Your task to perform on an android device: Look up the best rated headphones on Aliexpress Image 0: 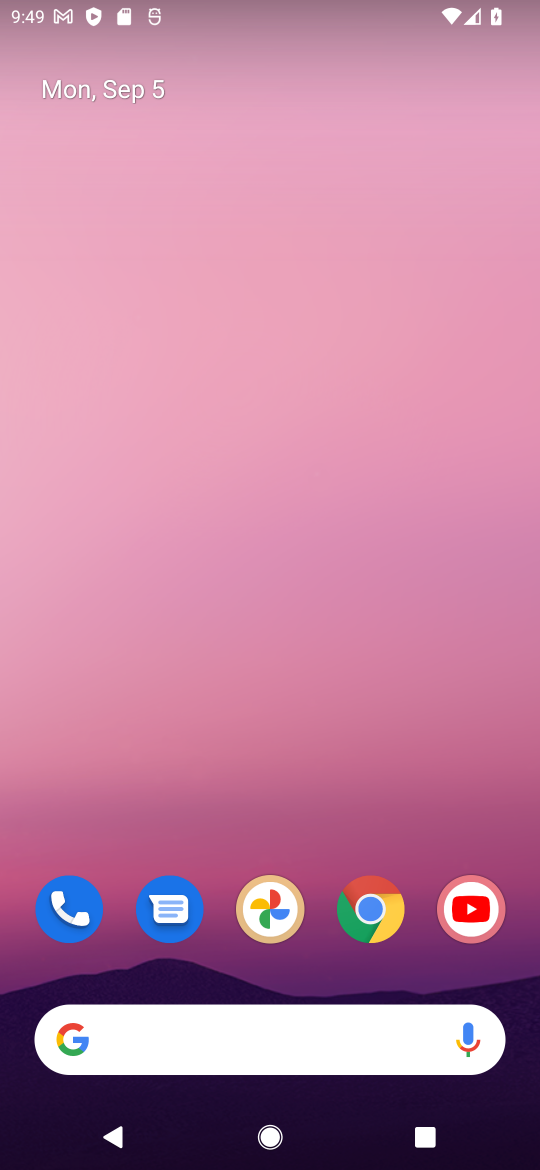
Step 0: click (364, 919)
Your task to perform on an android device: Look up the best rated headphones on Aliexpress Image 1: 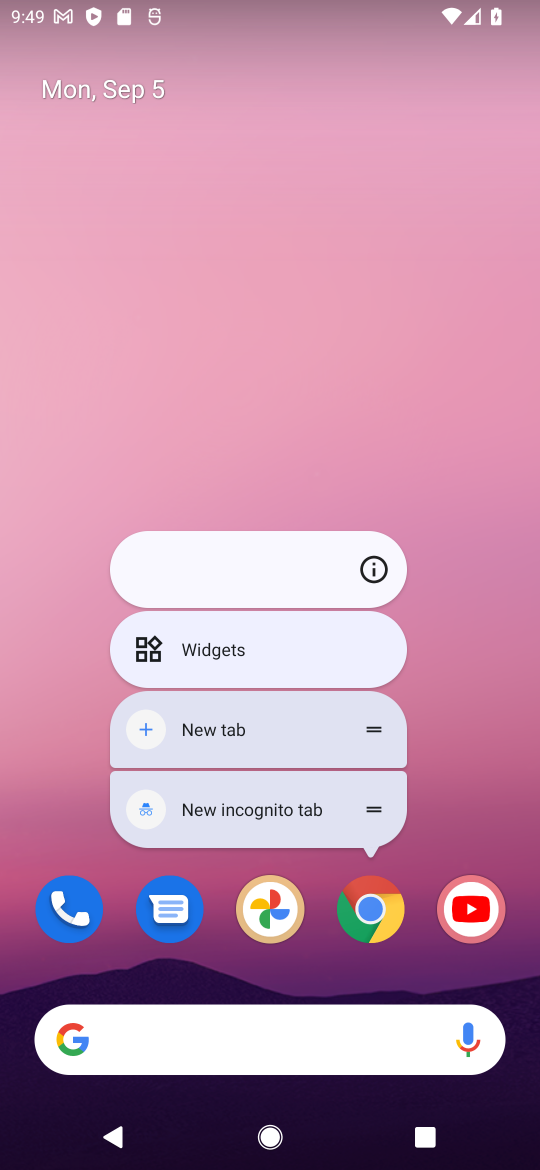
Step 1: click (363, 925)
Your task to perform on an android device: Look up the best rated headphones on Aliexpress Image 2: 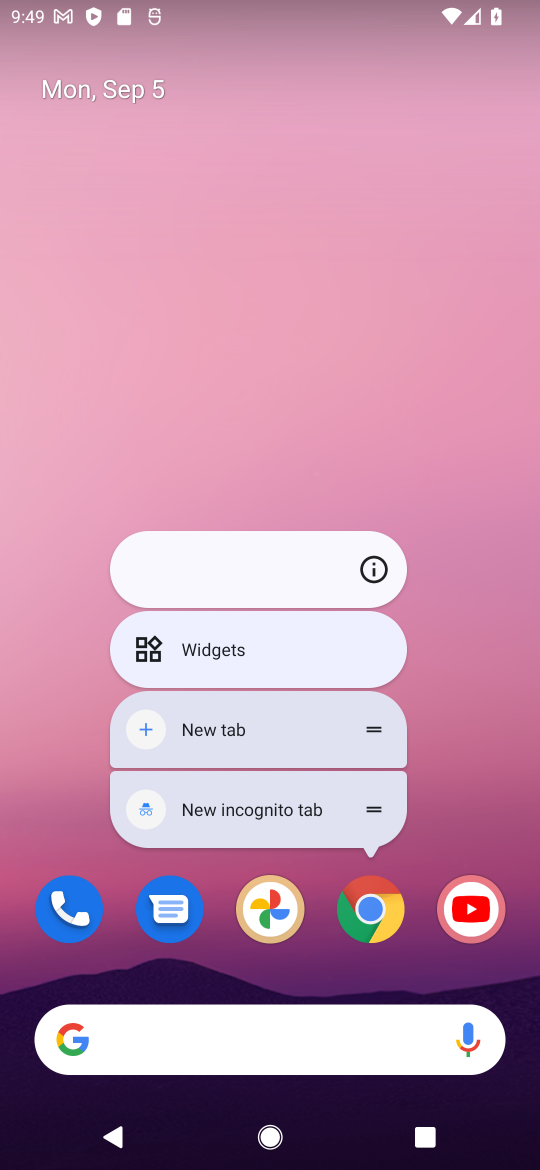
Step 2: click (363, 925)
Your task to perform on an android device: Look up the best rated headphones on Aliexpress Image 3: 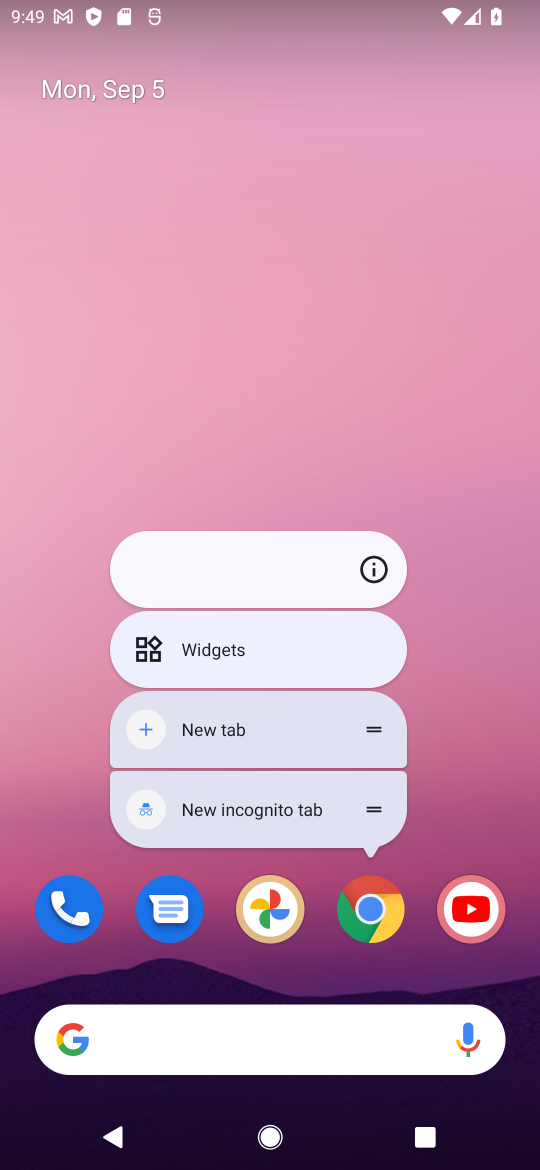
Step 3: click (426, 460)
Your task to perform on an android device: Look up the best rated headphones on Aliexpress Image 4: 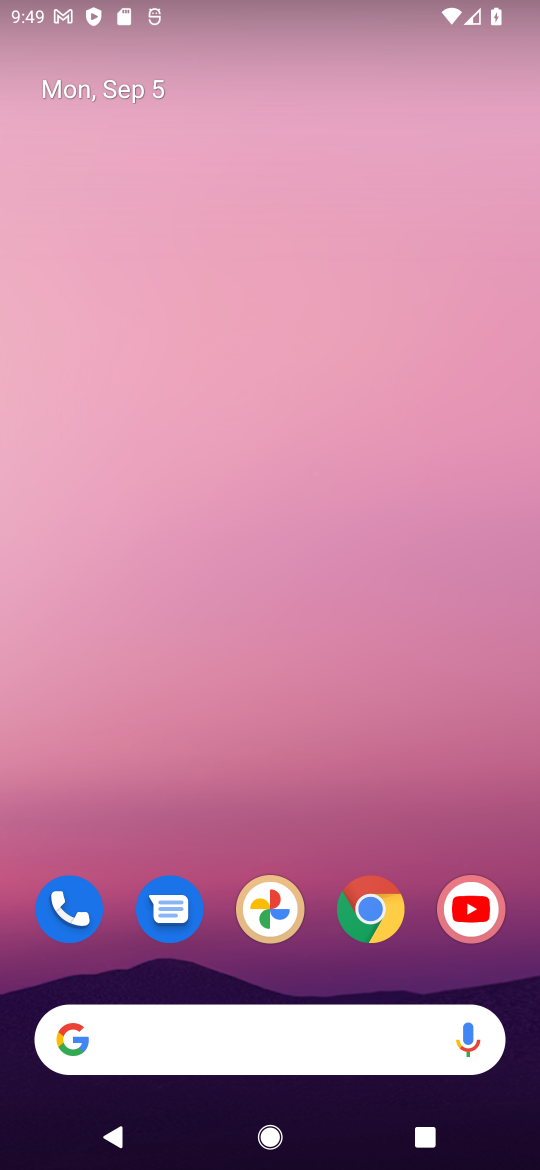
Step 4: click (369, 901)
Your task to perform on an android device: Look up the best rated headphones on Aliexpress Image 5: 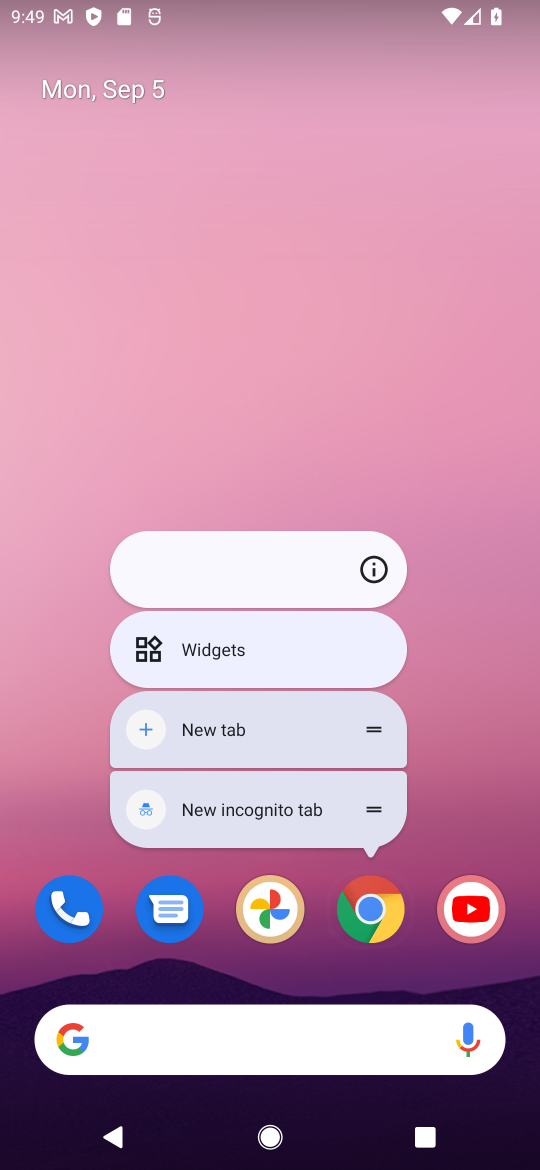
Step 5: click (369, 901)
Your task to perform on an android device: Look up the best rated headphones on Aliexpress Image 6: 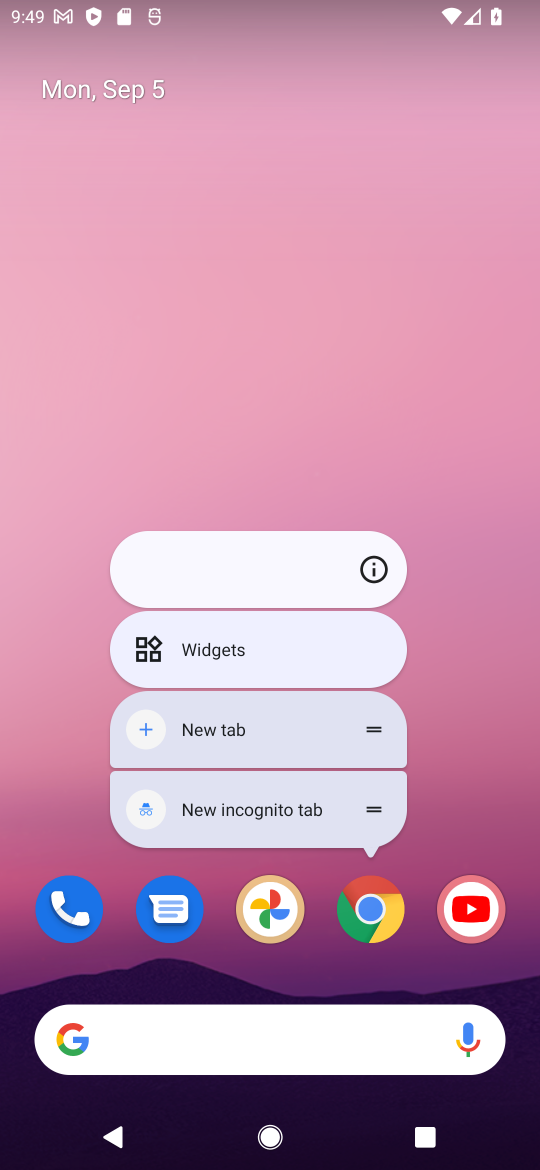
Step 6: click (369, 901)
Your task to perform on an android device: Look up the best rated headphones on Aliexpress Image 7: 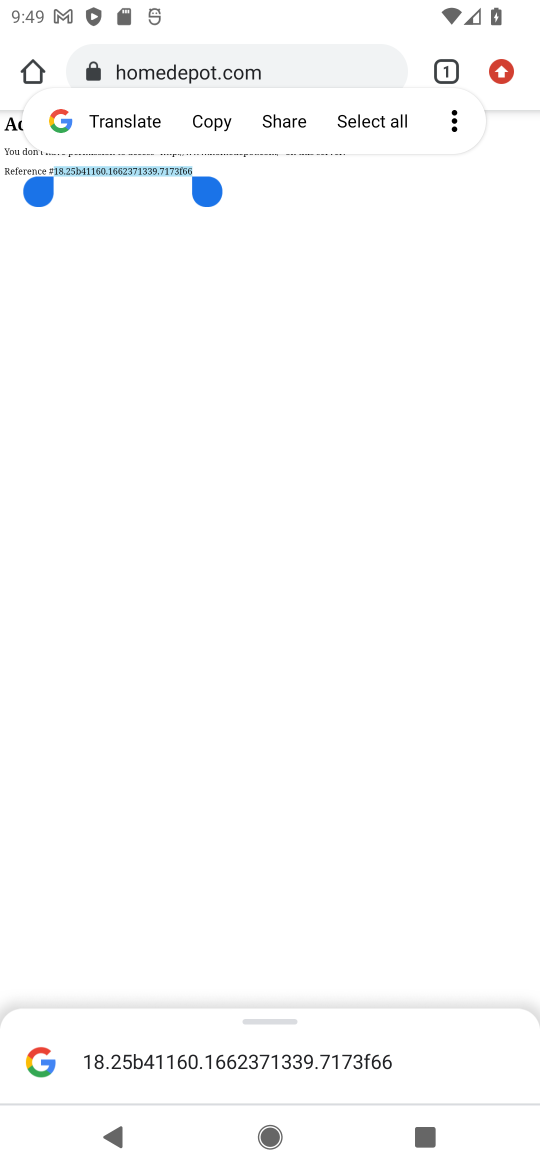
Step 7: click (341, 62)
Your task to perform on an android device: Look up the best rated headphones on Aliexpress Image 8: 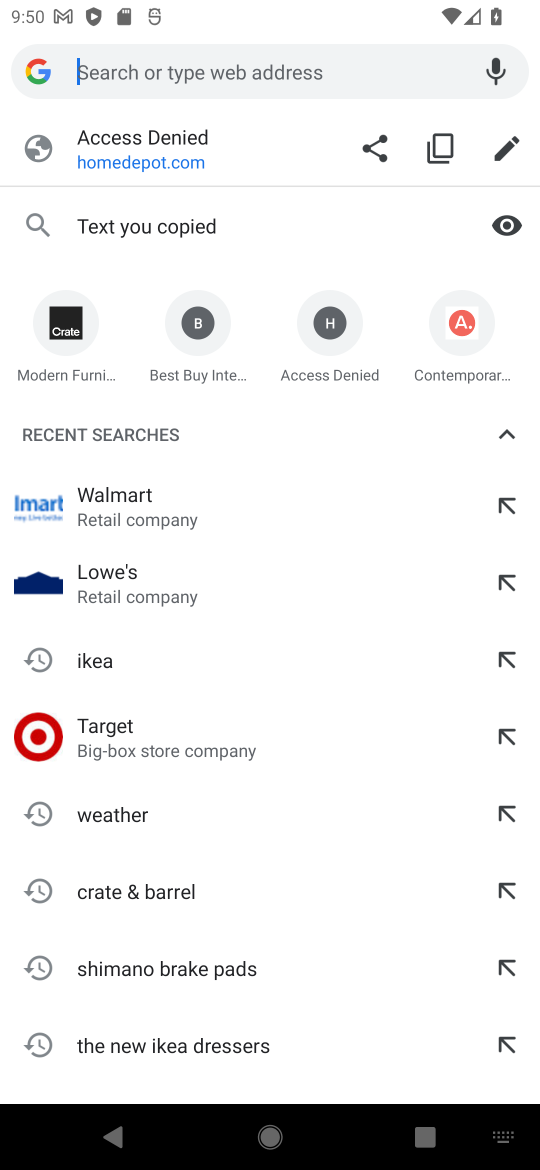
Step 8: type "aliexpress"
Your task to perform on an android device: Look up the best rated headphones on Aliexpress Image 9: 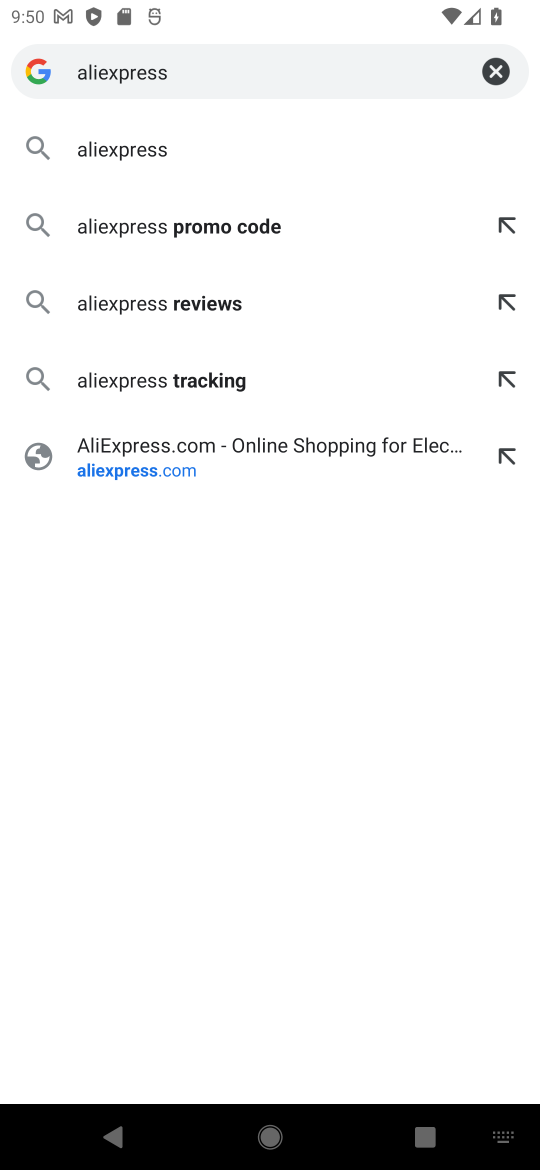
Step 9: click (222, 452)
Your task to perform on an android device: Look up the best rated headphones on Aliexpress Image 10: 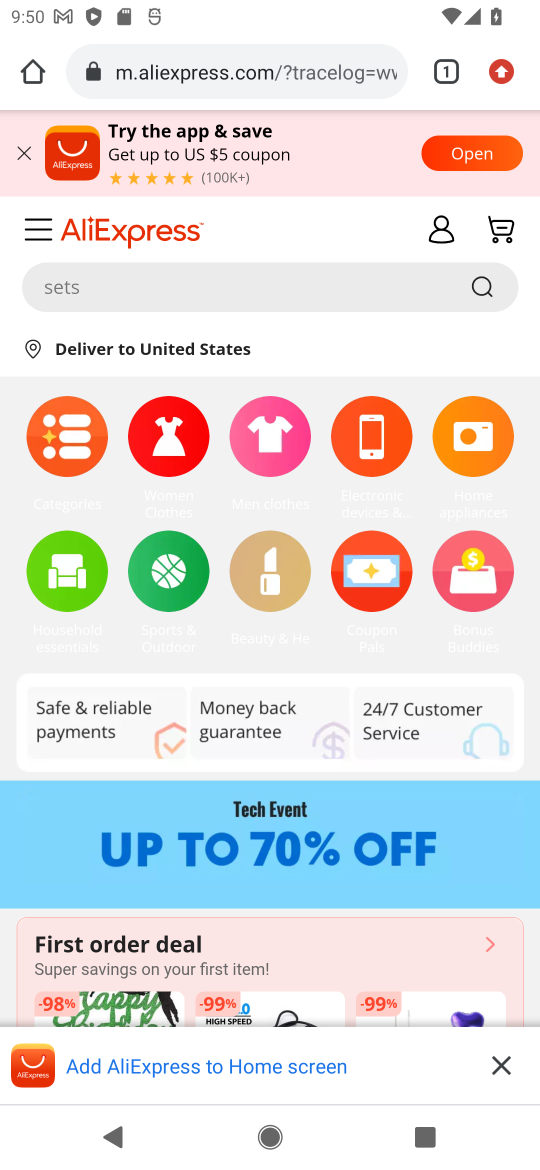
Step 10: click (311, 313)
Your task to perform on an android device: Look up the best rated headphones on Aliexpress Image 11: 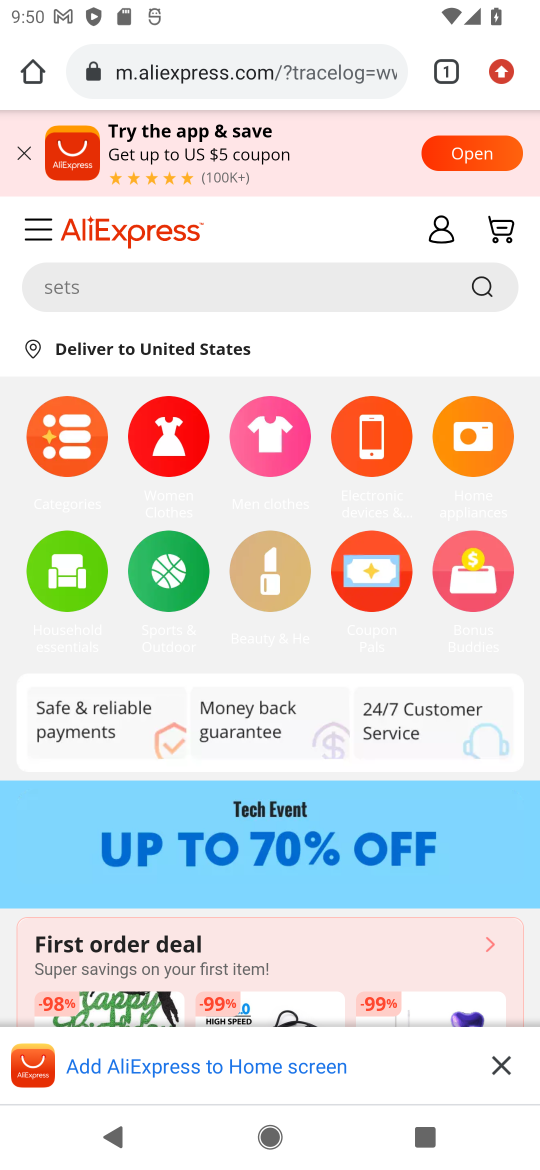
Step 11: click (305, 285)
Your task to perform on an android device: Look up the best rated headphones on Aliexpress Image 12: 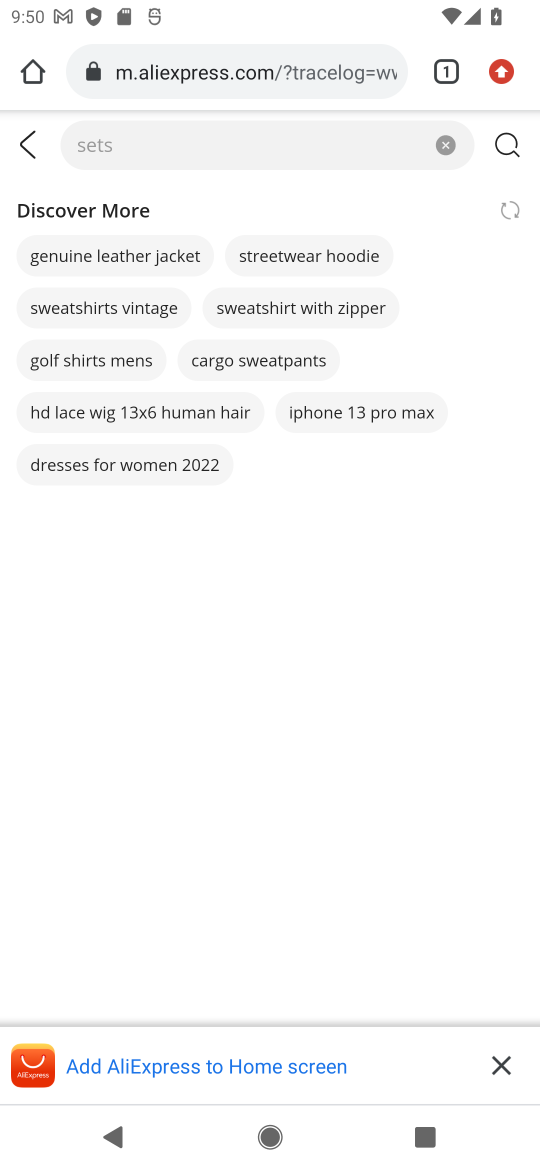
Step 12: type "best rated headphones"
Your task to perform on an android device: Look up the best rated headphones on Aliexpress Image 13: 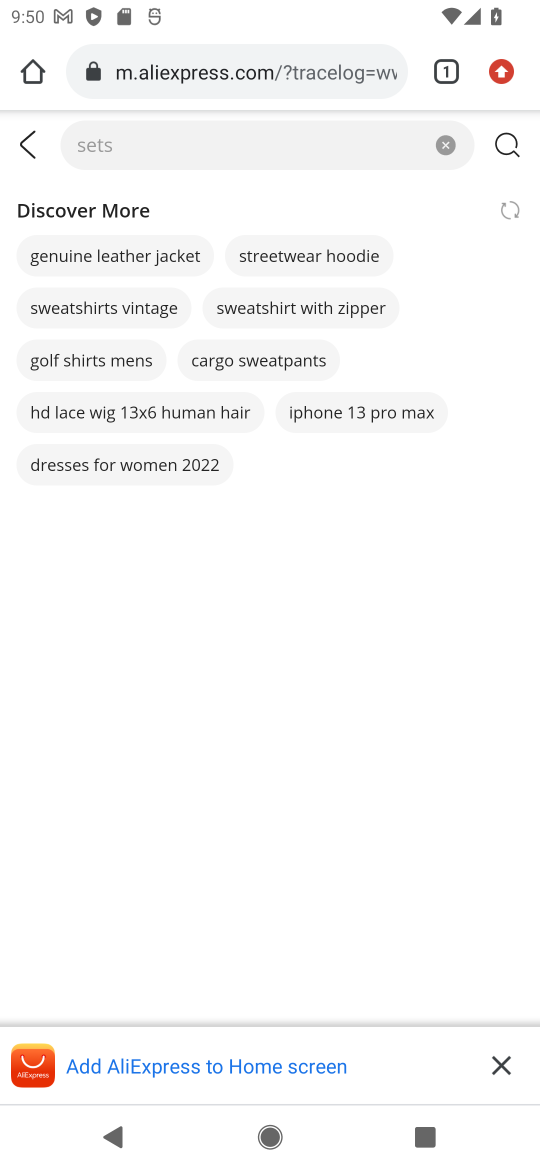
Step 13: click (327, 146)
Your task to perform on an android device: Look up the best rated headphones on Aliexpress Image 14: 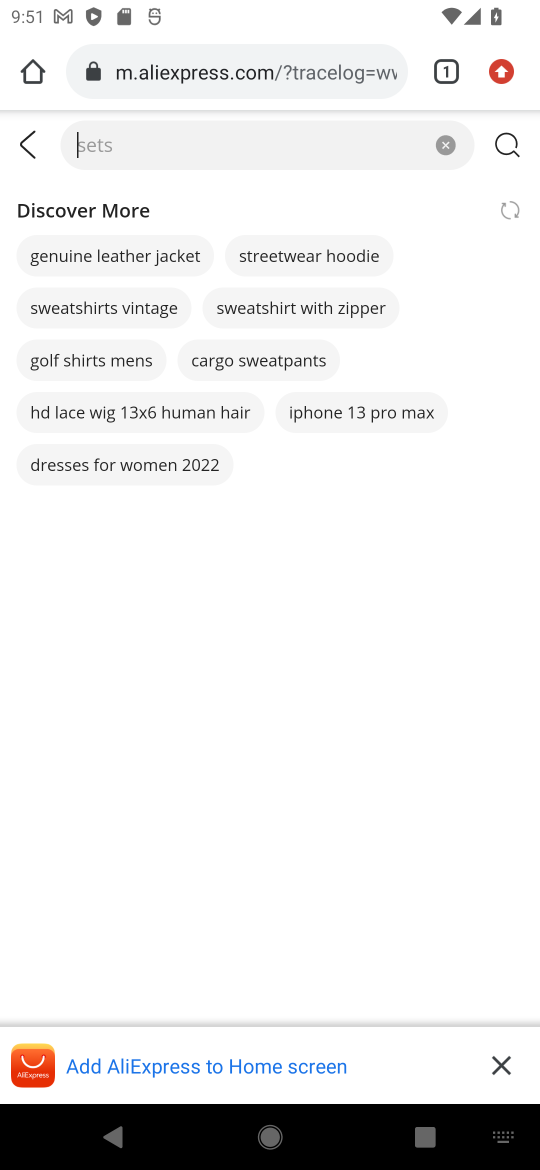
Step 14: type "best rated headphones"
Your task to perform on an android device: Look up the best rated headphones on Aliexpress Image 15: 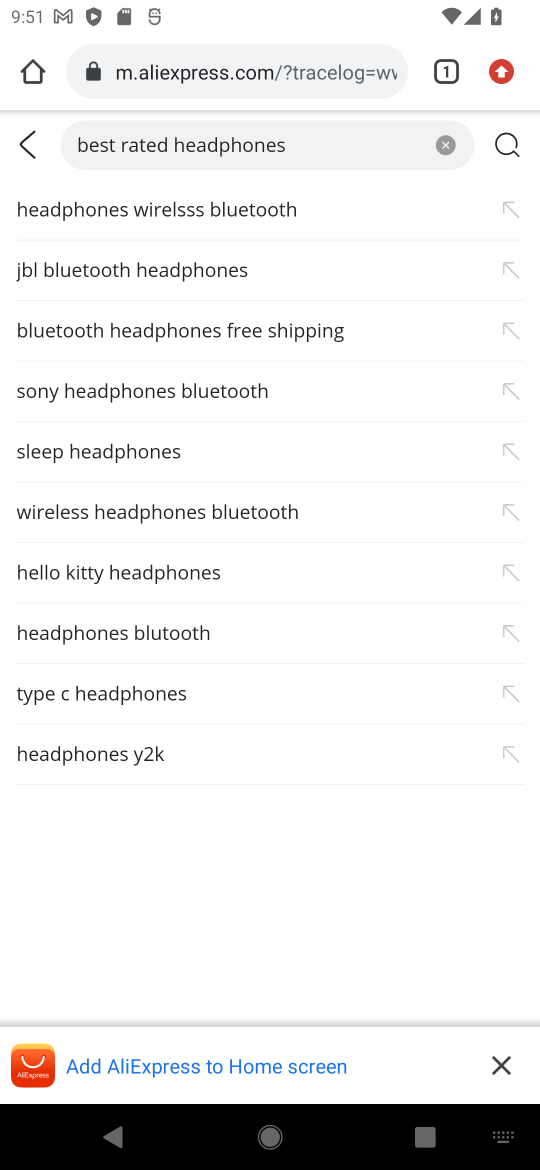
Step 15: click (508, 144)
Your task to perform on an android device: Look up the best rated headphones on Aliexpress Image 16: 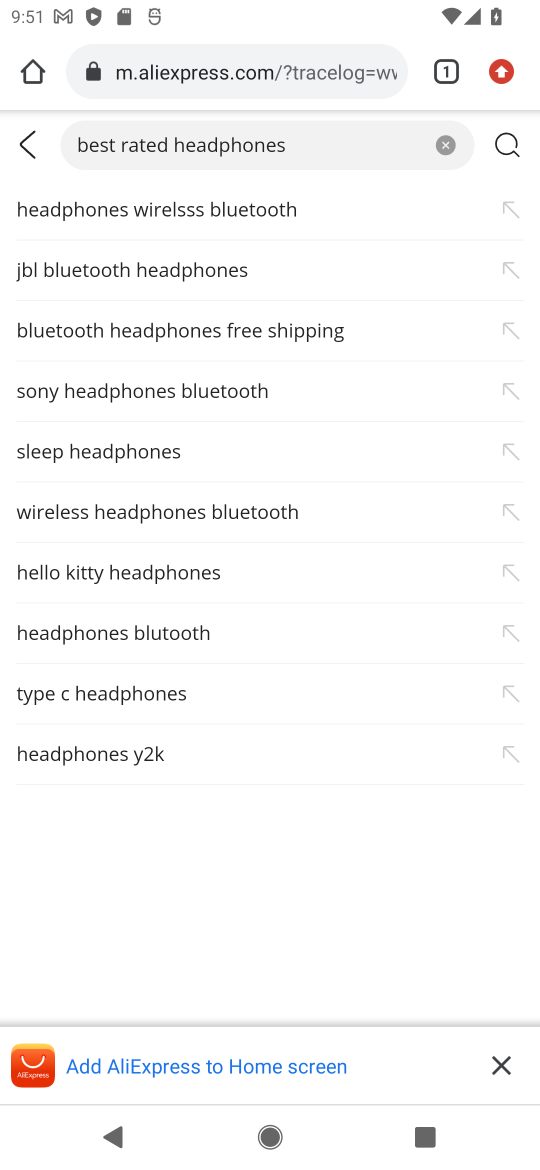
Step 16: click (508, 144)
Your task to perform on an android device: Look up the best rated headphones on Aliexpress Image 17: 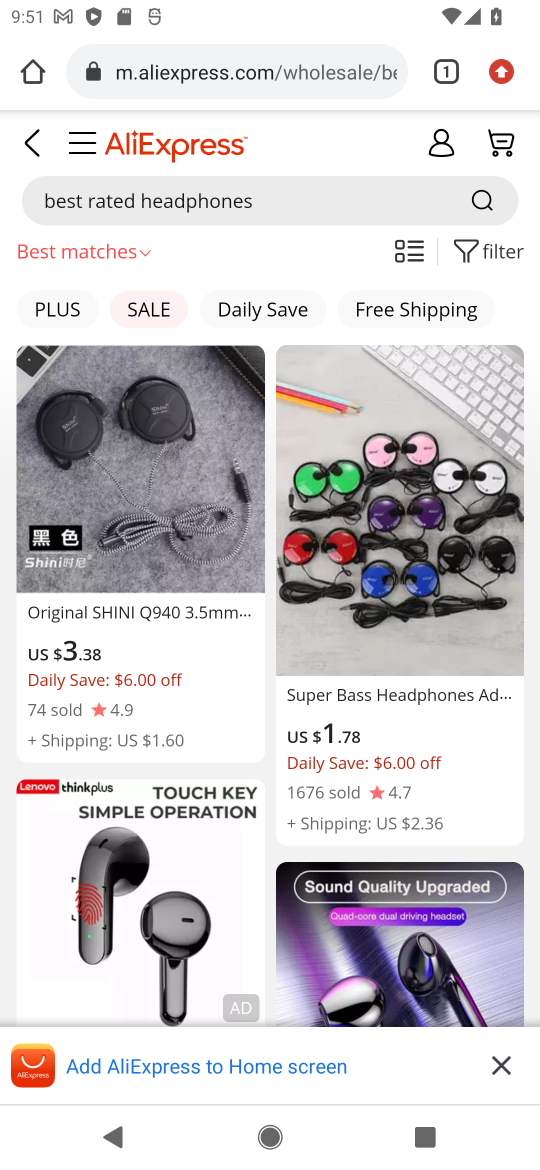
Step 17: task complete